Your task to perform on an android device: clear all cookies in the chrome app Image 0: 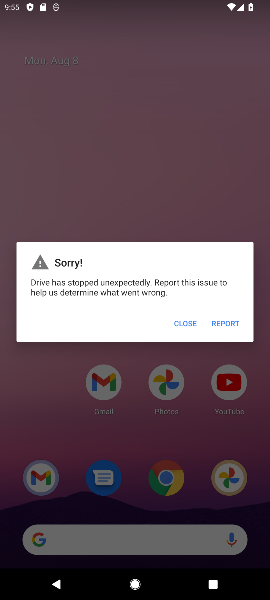
Step 0: click (184, 320)
Your task to perform on an android device: clear all cookies in the chrome app Image 1: 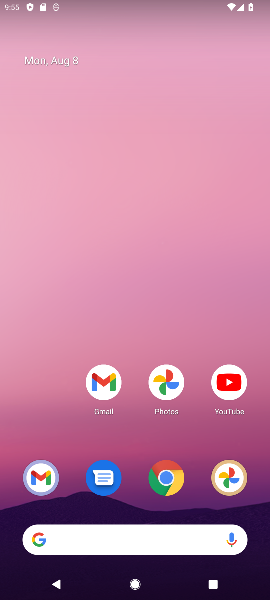
Step 1: click (148, 484)
Your task to perform on an android device: clear all cookies in the chrome app Image 2: 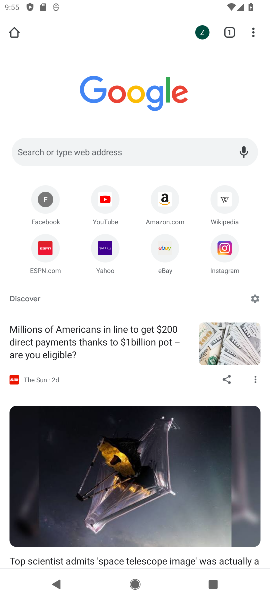
Step 2: click (252, 33)
Your task to perform on an android device: clear all cookies in the chrome app Image 3: 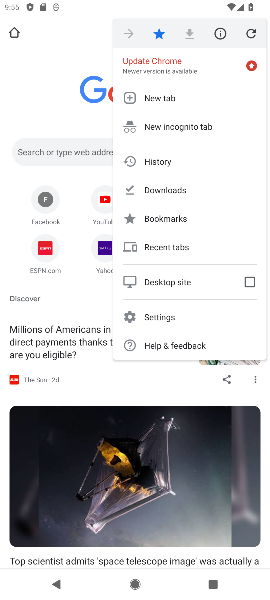
Step 3: click (166, 307)
Your task to perform on an android device: clear all cookies in the chrome app Image 4: 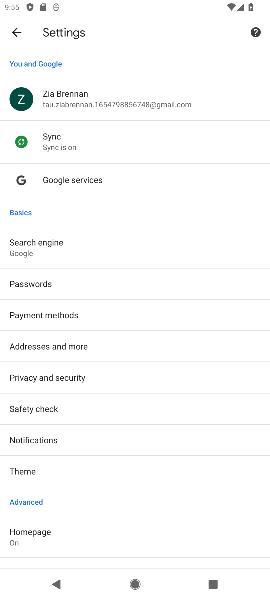
Step 4: drag from (151, 446) to (104, 37)
Your task to perform on an android device: clear all cookies in the chrome app Image 5: 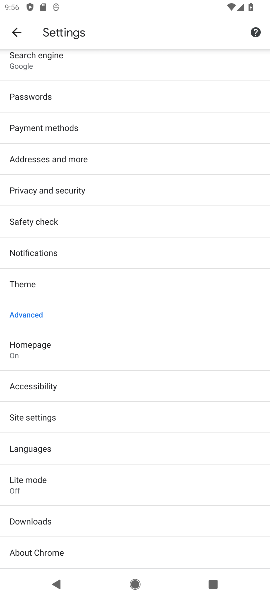
Step 5: click (67, 188)
Your task to perform on an android device: clear all cookies in the chrome app Image 6: 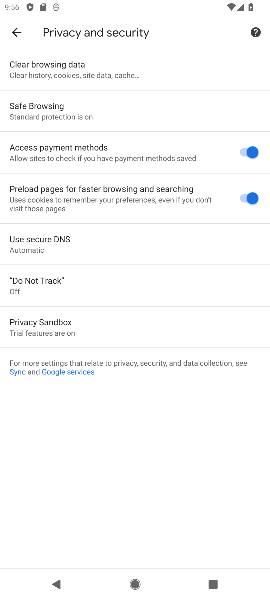
Step 6: click (65, 77)
Your task to perform on an android device: clear all cookies in the chrome app Image 7: 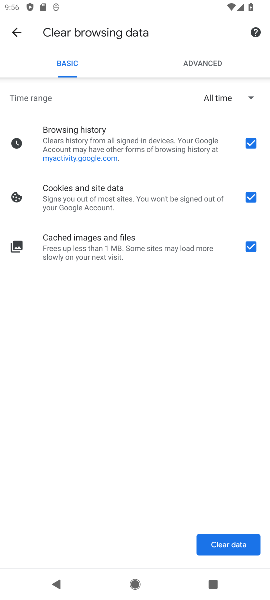
Step 7: click (231, 544)
Your task to perform on an android device: clear all cookies in the chrome app Image 8: 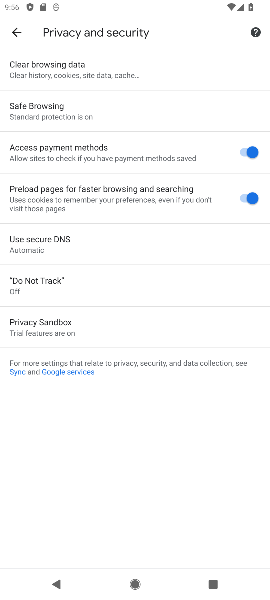
Step 8: task complete